Your task to perform on an android device: toggle show notifications on the lock screen Image 0: 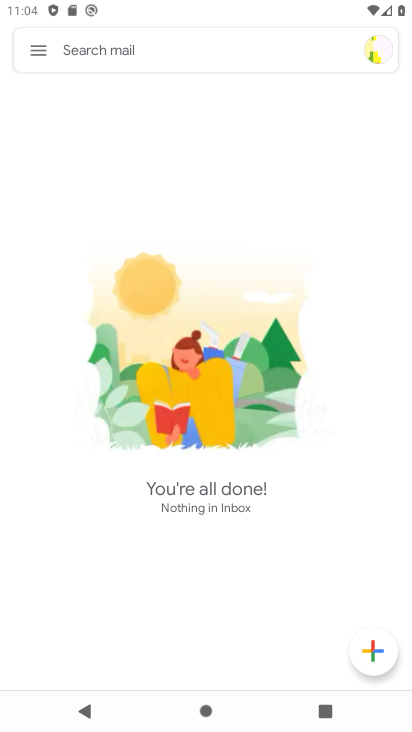
Step 0: press home button
Your task to perform on an android device: toggle show notifications on the lock screen Image 1: 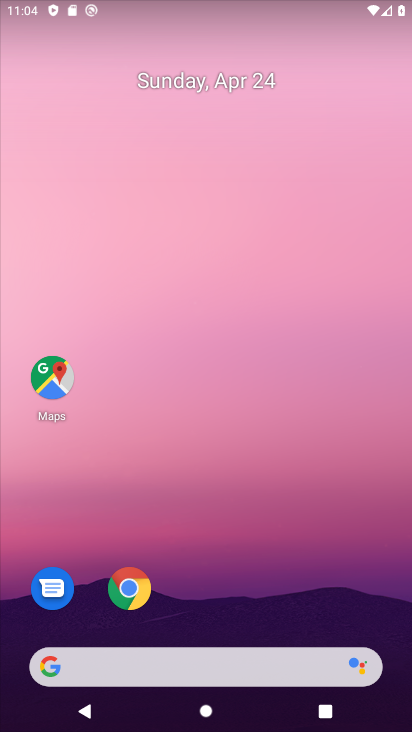
Step 1: drag from (284, 476) to (270, 110)
Your task to perform on an android device: toggle show notifications on the lock screen Image 2: 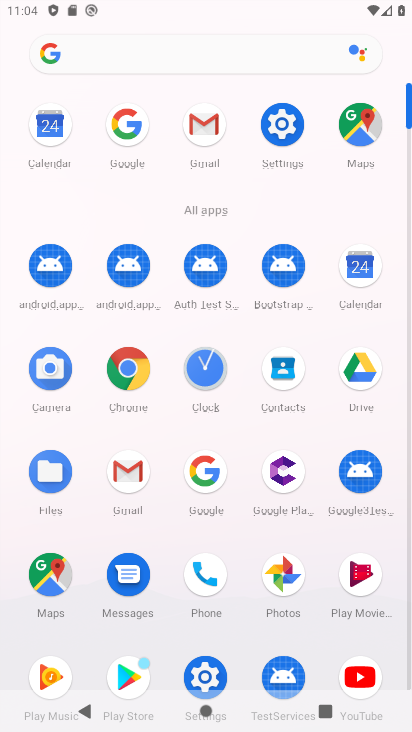
Step 2: click (289, 133)
Your task to perform on an android device: toggle show notifications on the lock screen Image 3: 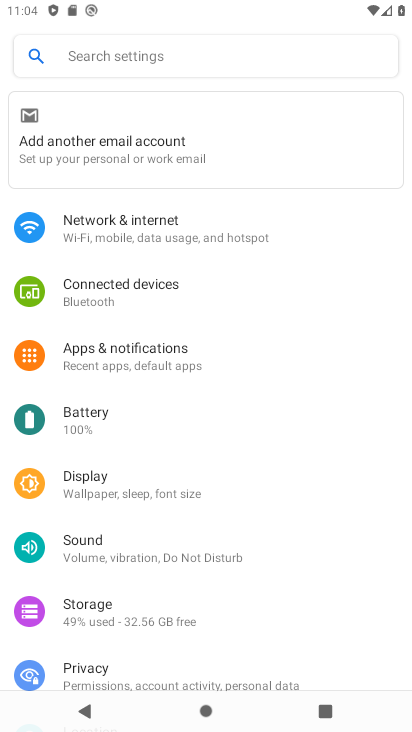
Step 3: drag from (233, 598) to (236, 335)
Your task to perform on an android device: toggle show notifications on the lock screen Image 4: 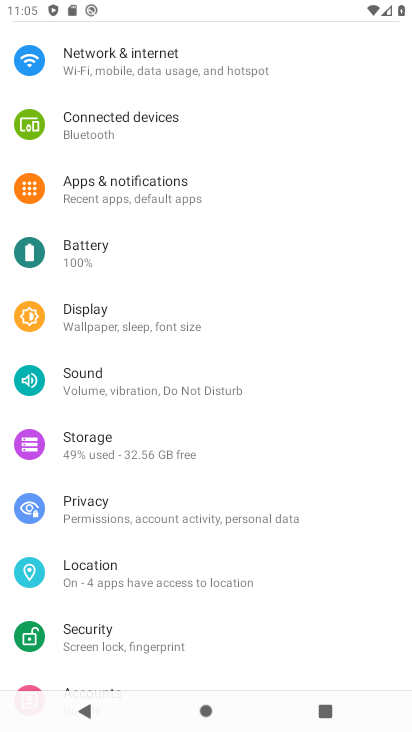
Step 4: click (167, 190)
Your task to perform on an android device: toggle show notifications on the lock screen Image 5: 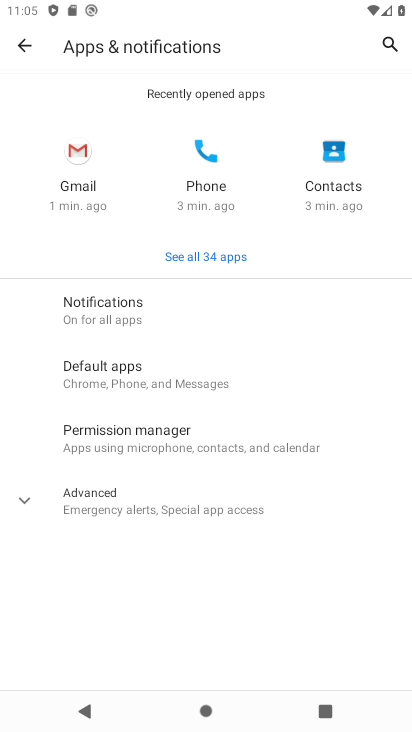
Step 5: click (146, 311)
Your task to perform on an android device: toggle show notifications on the lock screen Image 6: 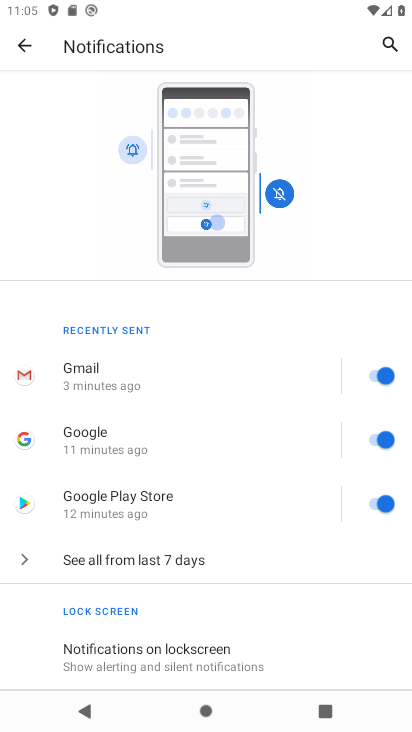
Step 6: click (212, 650)
Your task to perform on an android device: toggle show notifications on the lock screen Image 7: 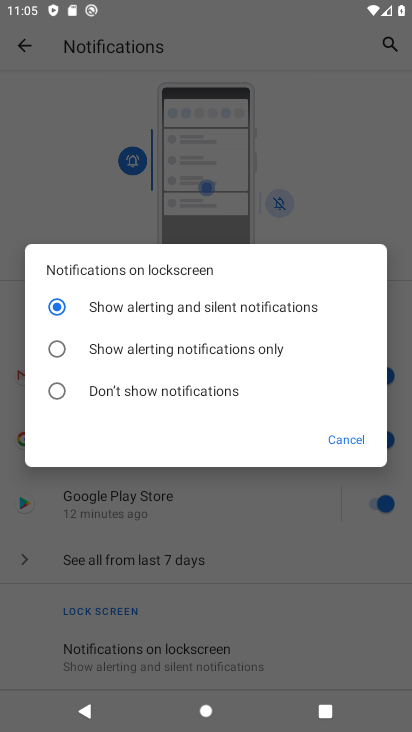
Step 7: click (81, 347)
Your task to perform on an android device: toggle show notifications on the lock screen Image 8: 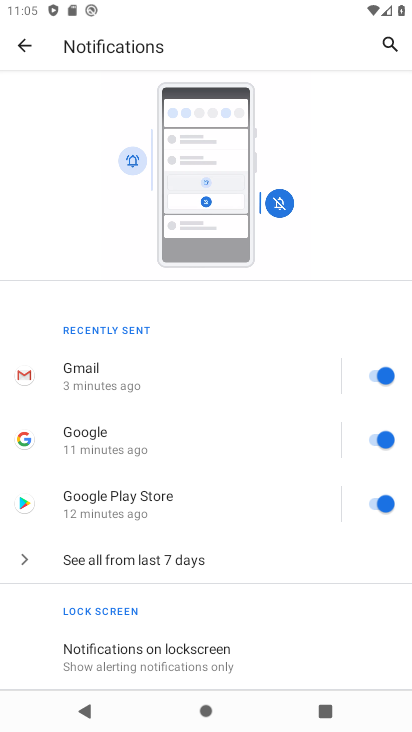
Step 8: task complete